Your task to perform on an android device: What's the weather today? Image 0: 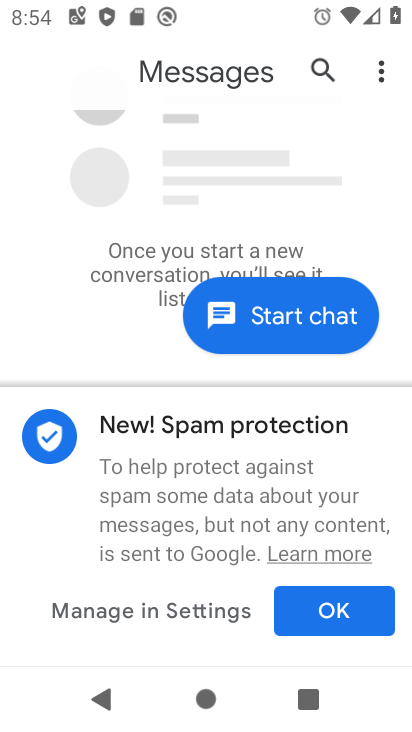
Step 0: press home button
Your task to perform on an android device: What's the weather today? Image 1: 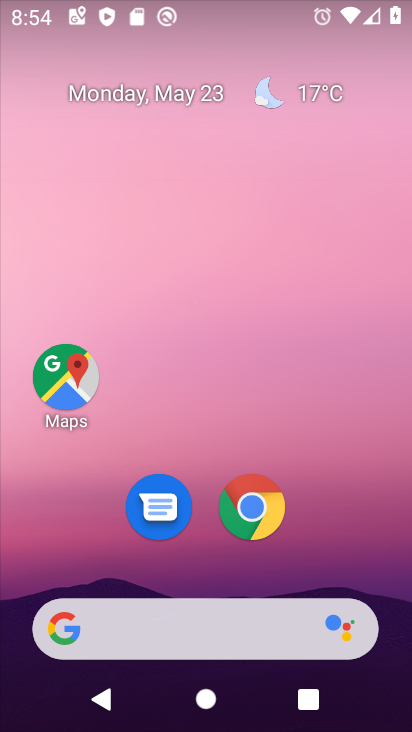
Step 1: click (315, 95)
Your task to perform on an android device: What's the weather today? Image 2: 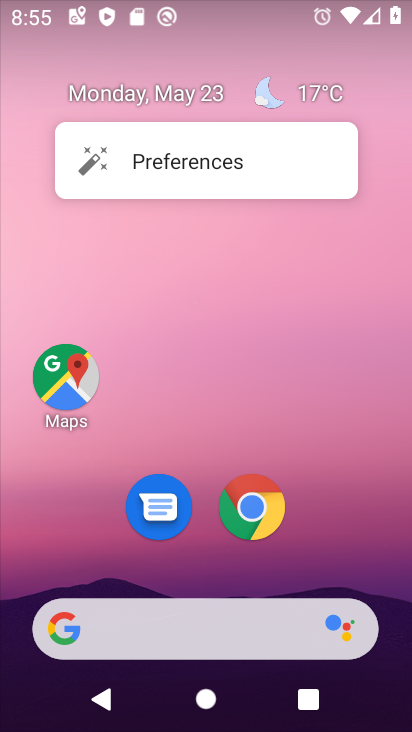
Step 2: click (316, 96)
Your task to perform on an android device: What's the weather today? Image 3: 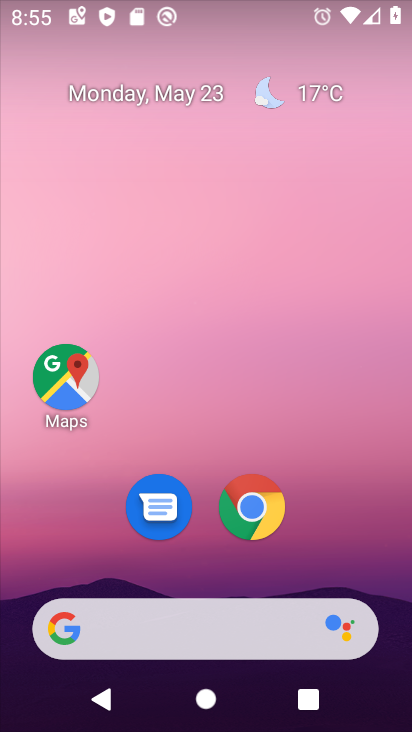
Step 3: click (315, 99)
Your task to perform on an android device: What's the weather today? Image 4: 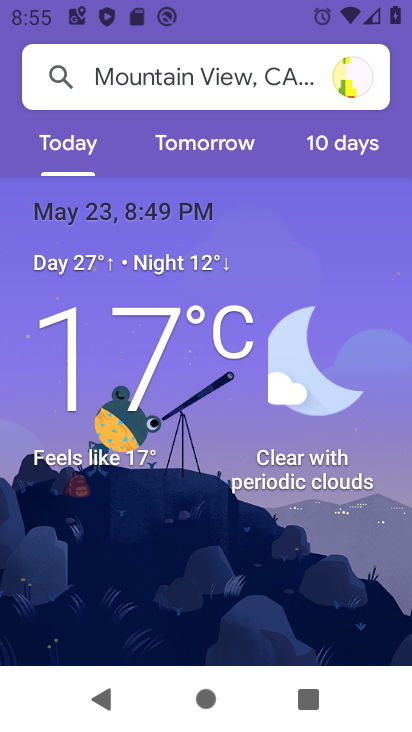
Step 4: task complete